Your task to perform on an android device: Clear the shopping cart on ebay.com. Add macbook pro to the cart on ebay.com, then select checkout. Image 0: 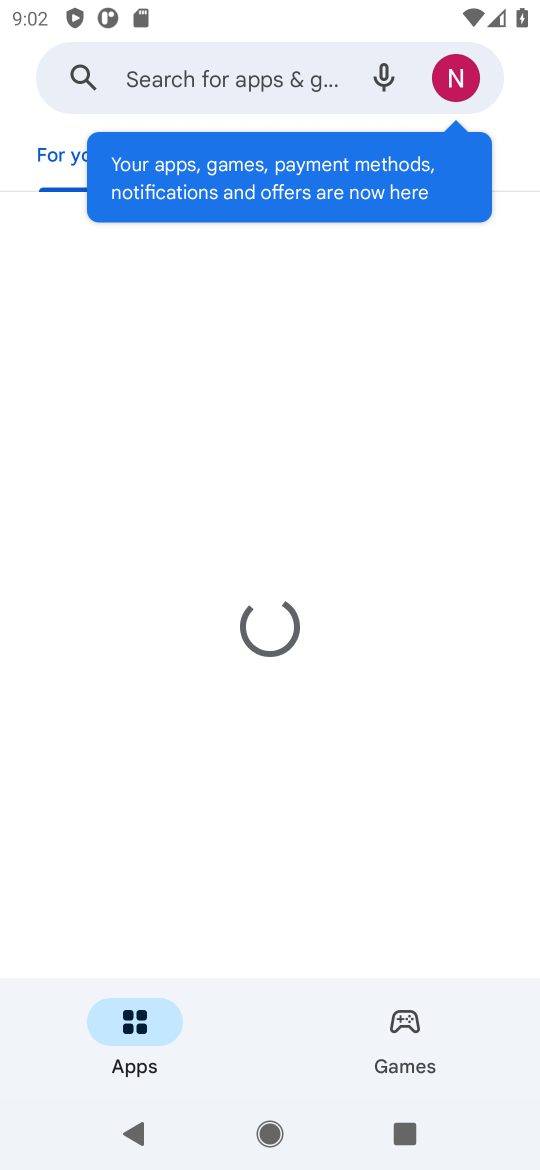
Step 0: press home button
Your task to perform on an android device: Clear the shopping cart on ebay.com. Add macbook pro to the cart on ebay.com, then select checkout. Image 1: 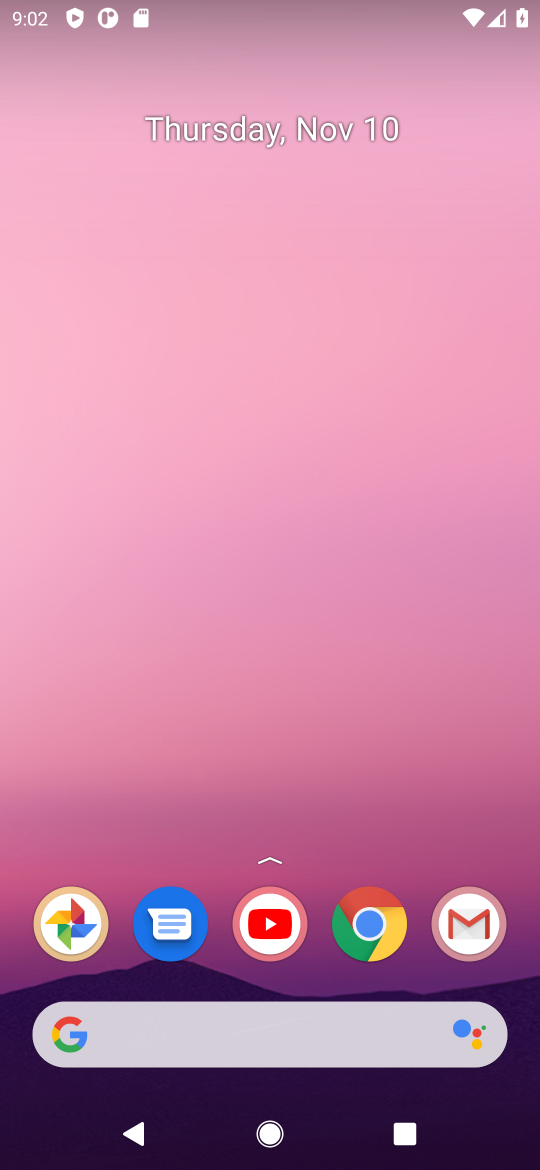
Step 1: click (384, 960)
Your task to perform on an android device: Clear the shopping cart on ebay.com. Add macbook pro to the cart on ebay.com, then select checkout. Image 2: 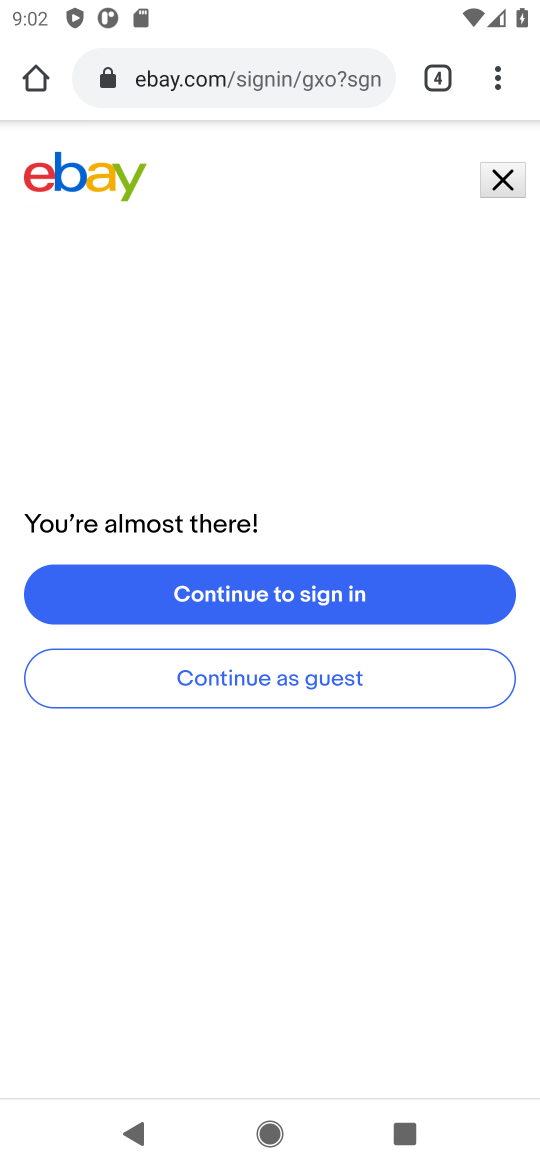
Step 2: click (190, 87)
Your task to perform on an android device: Clear the shopping cart on ebay.com. Add macbook pro to the cart on ebay.com, then select checkout. Image 3: 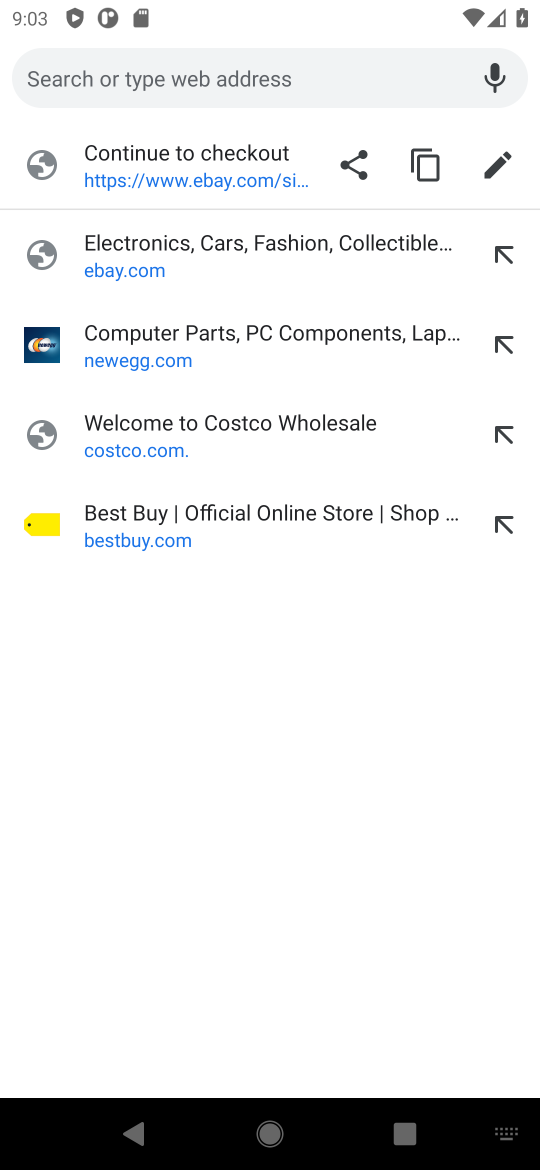
Step 3: click (122, 274)
Your task to perform on an android device: Clear the shopping cart on ebay.com. Add macbook pro to the cart on ebay.com, then select checkout. Image 4: 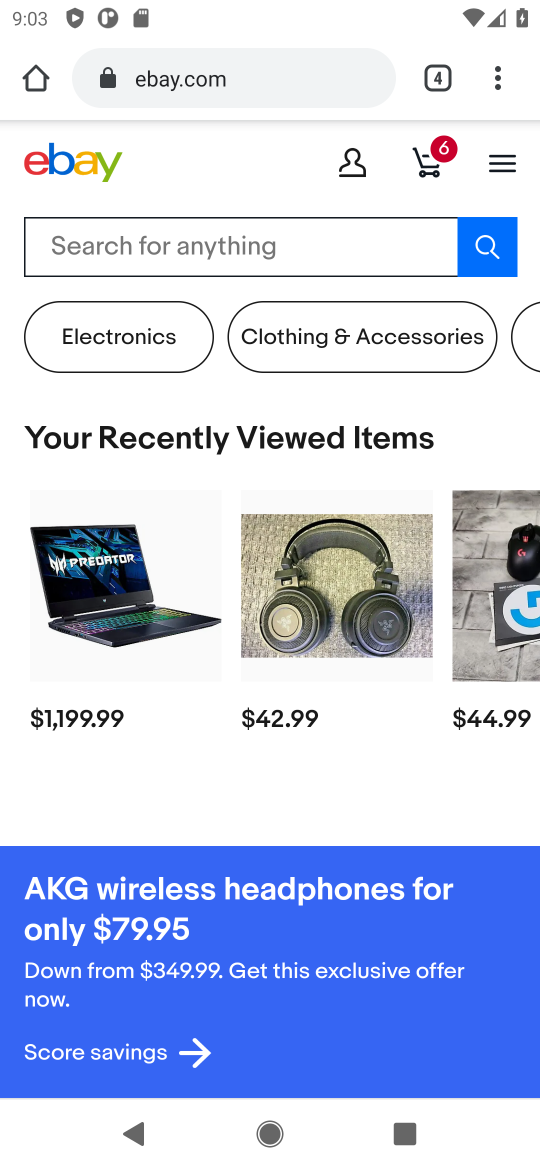
Step 4: click (425, 158)
Your task to perform on an android device: Clear the shopping cart on ebay.com. Add macbook pro to the cart on ebay.com, then select checkout. Image 5: 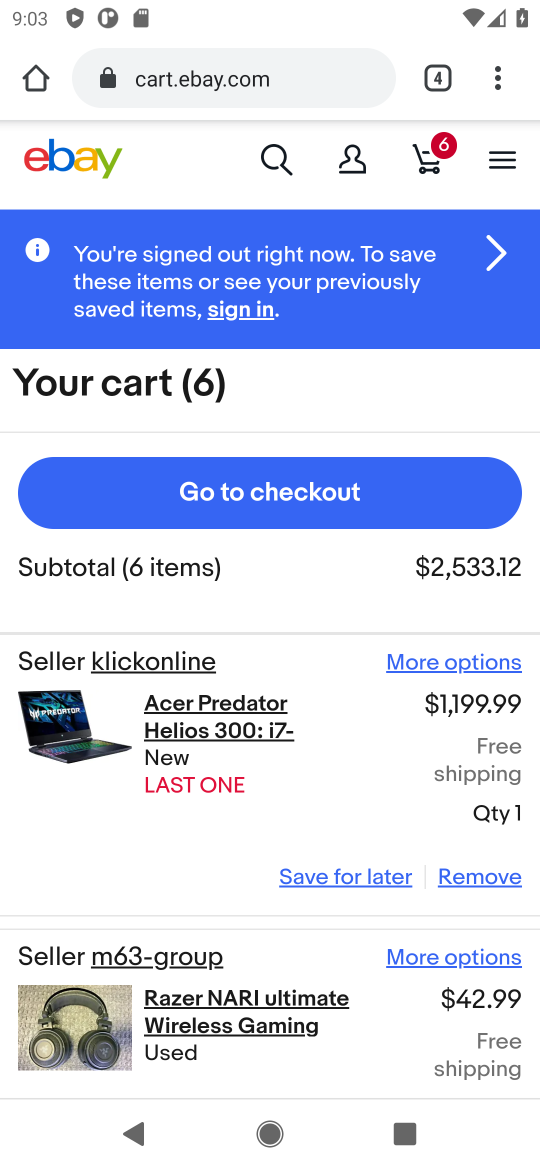
Step 5: click (462, 880)
Your task to perform on an android device: Clear the shopping cart on ebay.com. Add macbook pro to the cart on ebay.com, then select checkout. Image 6: 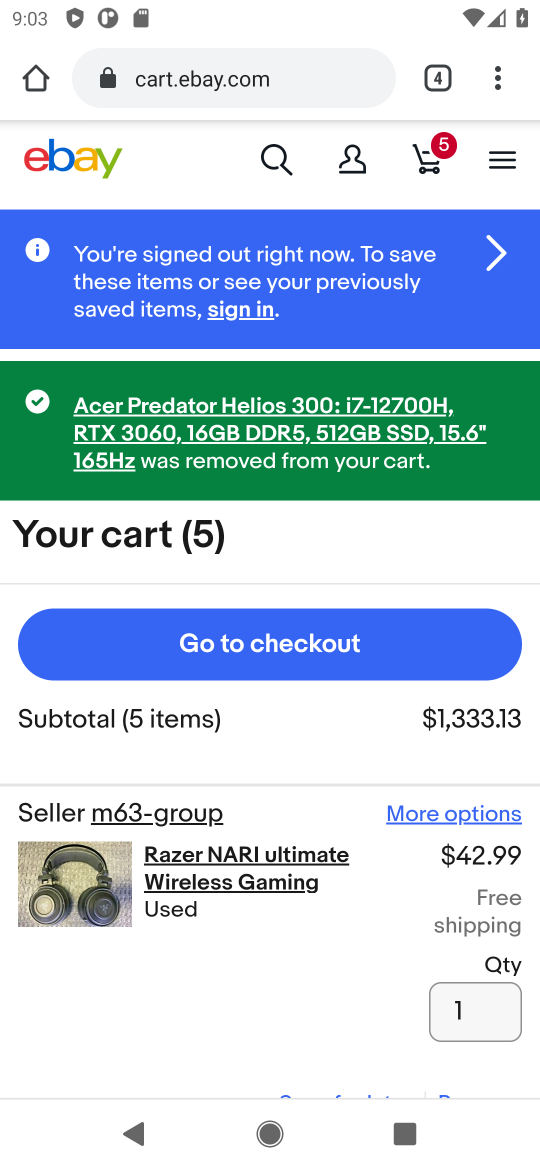
Step 6: drag from (376, 859) to (369, 524)
Your task to perform on an android device: Clear the shopping cart on ebay.com. Add macbook pro to the cart on ebay.com, then select checkout. Image 7: 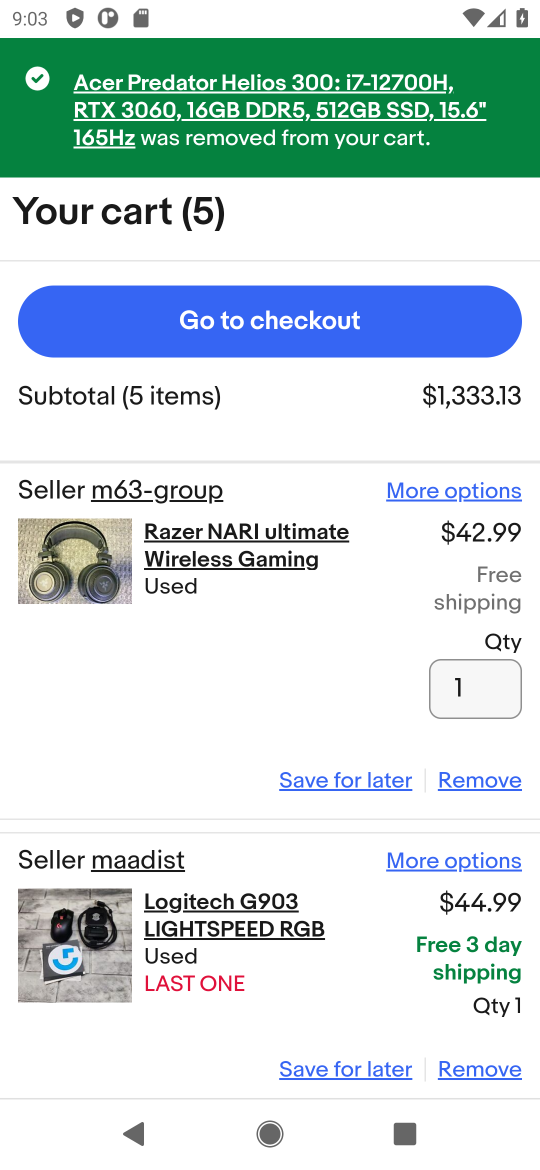
Step 7: click (490, 784)
Your task to perform on an android device: Clear the shopping cart on ebay.com. Add macbook pro to the cart on ebay.com, then select checkout. Image 8: 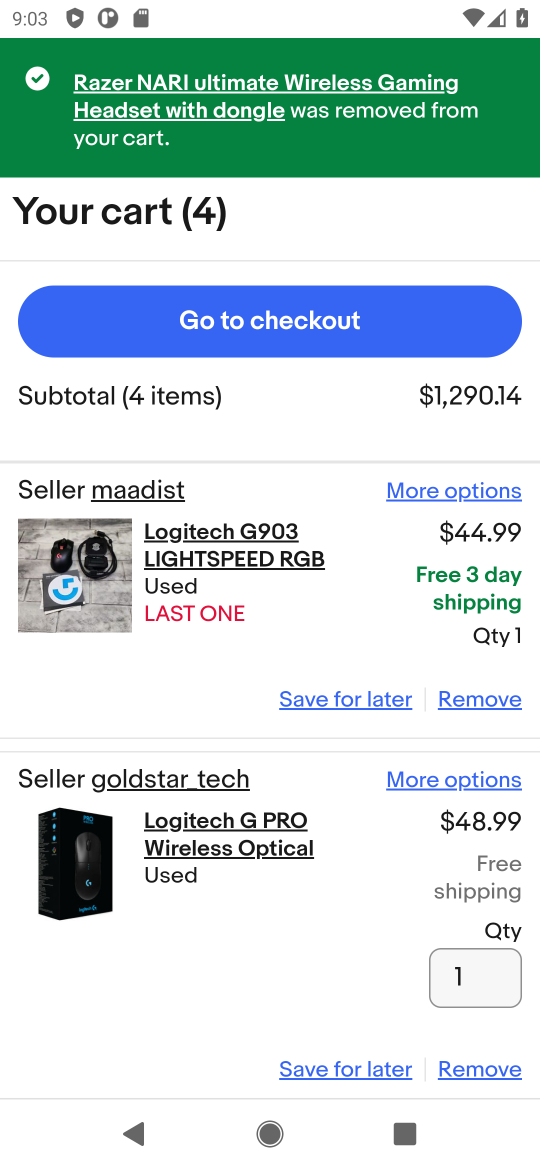
Step 8: click (475, 700)
Your task to perform on an android device: Clear the shopping cart on ebay.com. Add macbook pro to the cart on ebay.com, then select checkout. Image 9: 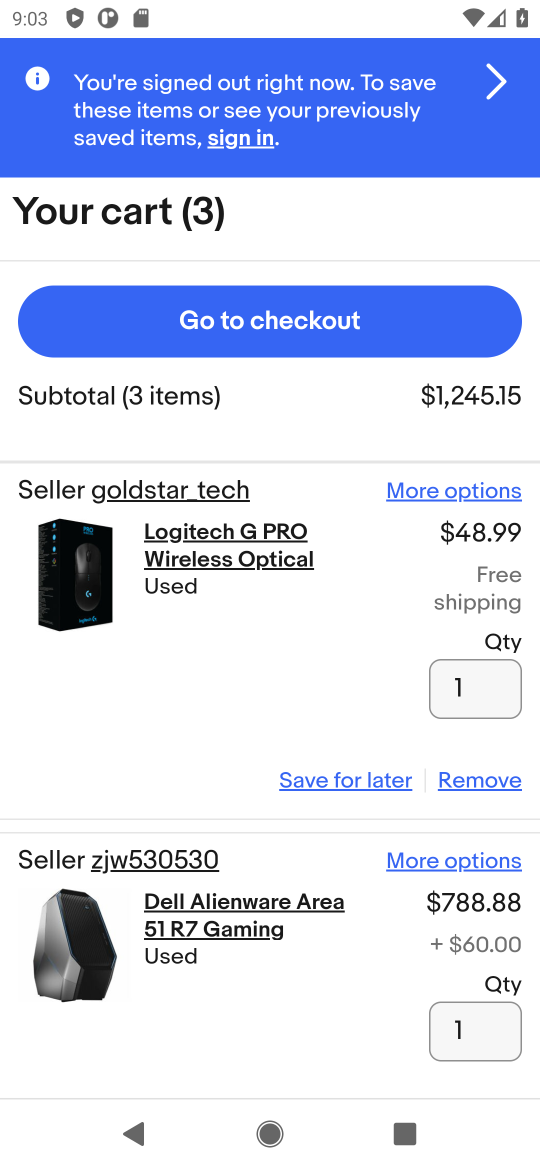
Step 9: click (455, 782)
Your task to perform on an android device: Clear the shopping cart on ebay.com. Add macbook pro to the cart on ebay.com, then select checkout. Image 10: 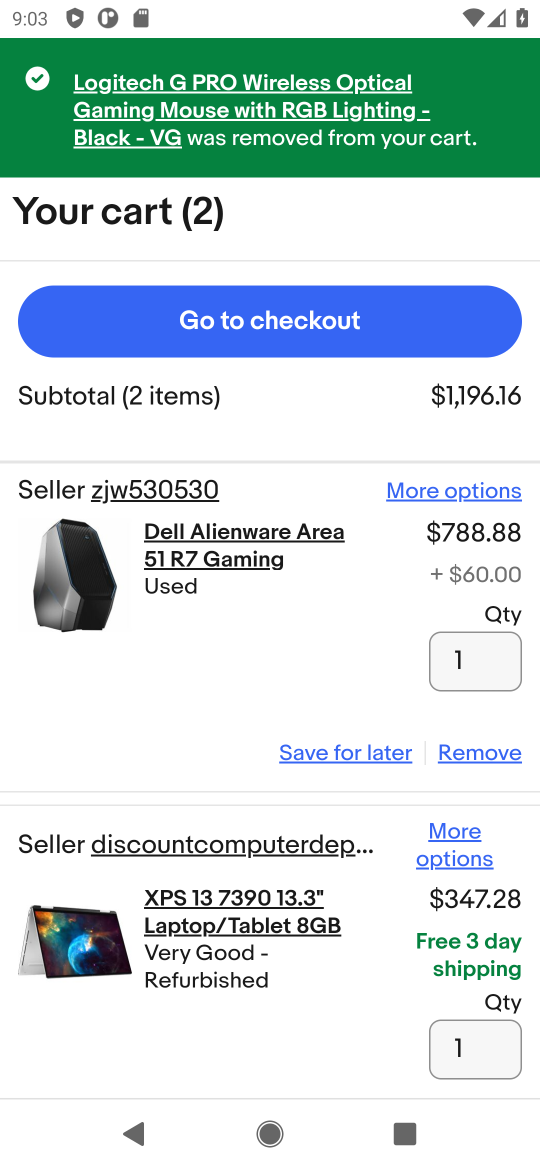
Step 10: click (468, 756)
Your task to perform on an android device: Clear the shopping cart on ebay.com. Add macbook pro to the cart on ebay.com, then select checkout. Image 11: 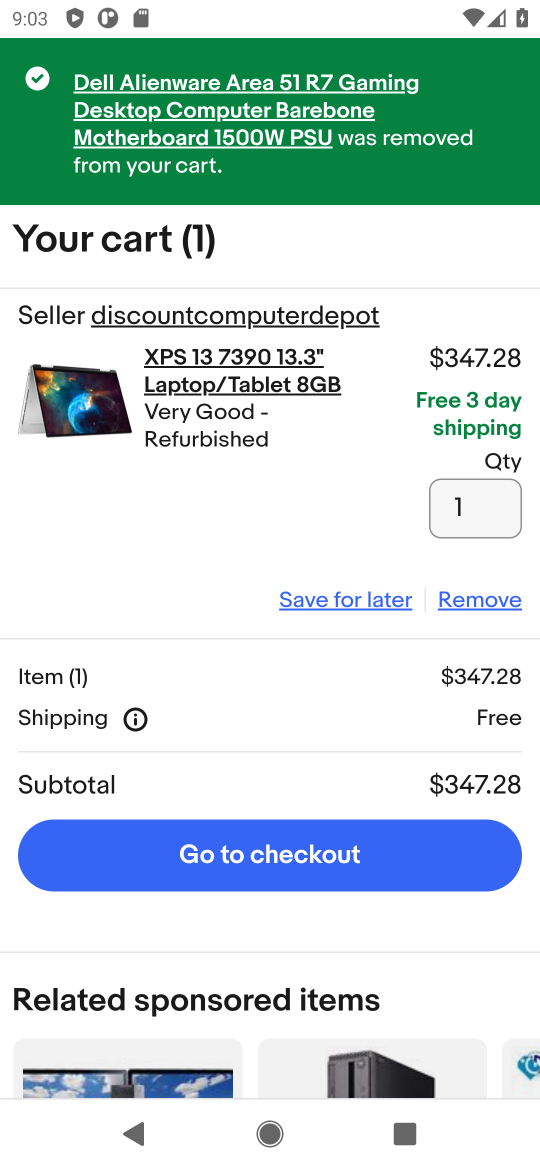
Step 11: click (458, 603)
Your task to perform on an android device: Clear the shopping cart on ebay.com. Add macbook pro to the cart on ebay.com, then select checkout. Image 12: 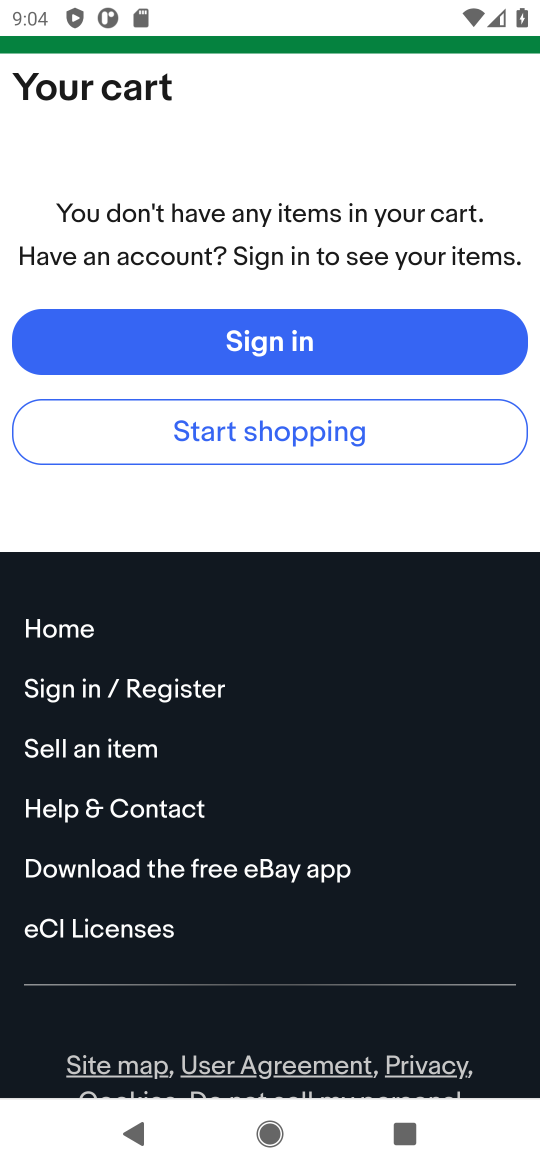
Step 12: drag from (404, 481) to (420, 704)
Your task to perform on an android device: Clear the shopping cart on ebay.com. Add macbook pro to the cart on ebay.com, then select checkout. Image 13: 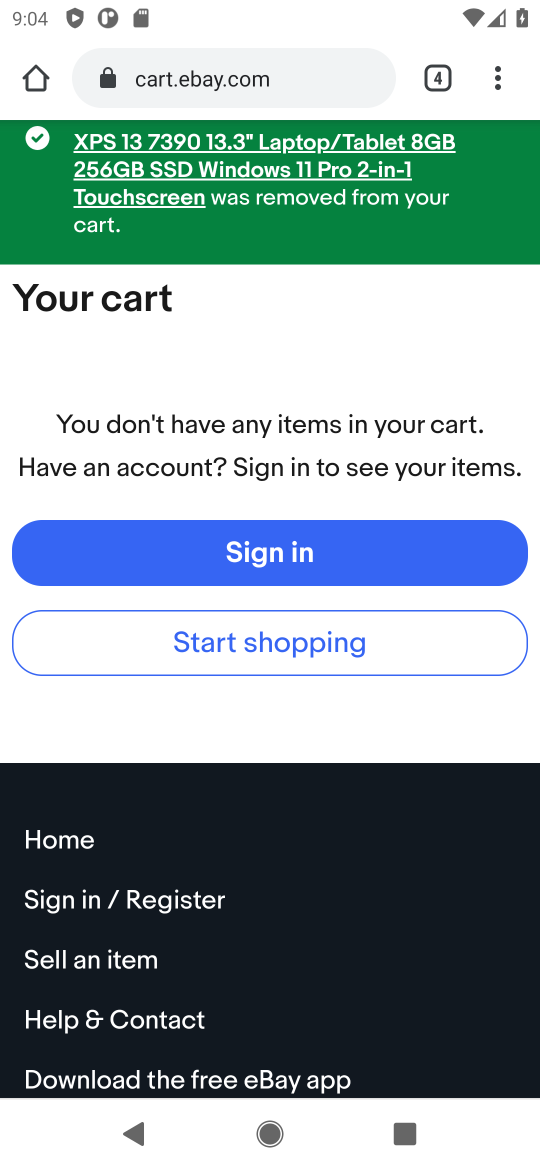
Step 13: drag from (360, 274) to (419, 589)
Your task to perform on an android device: Clear the shopping cart on ebay.com. Add macbook pro to the cart on ebay.com, then select checkout. Image 14: 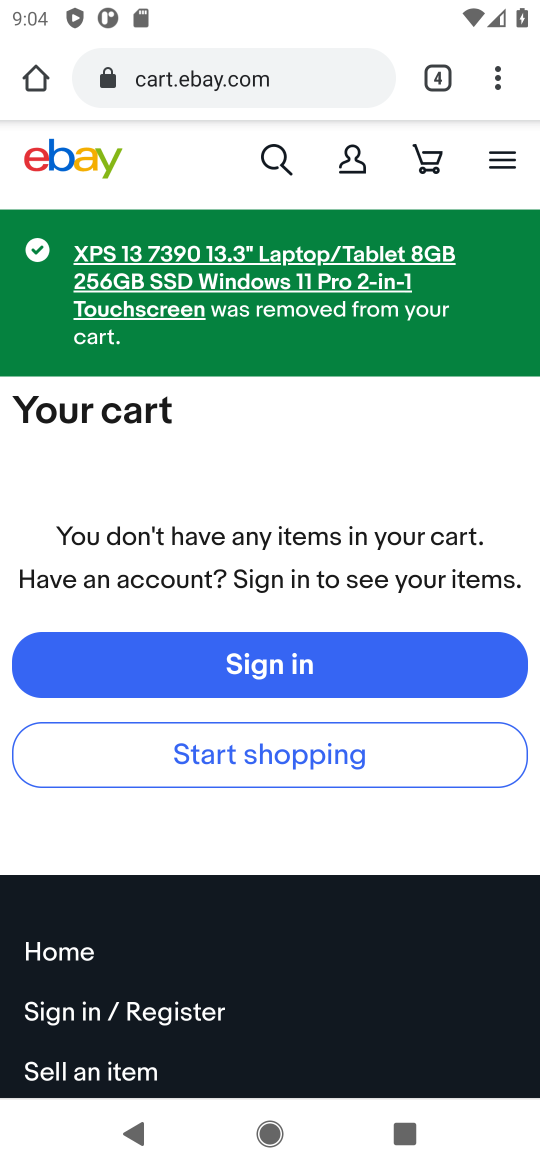
Step 14: click (283, 159)
Your task to perform on an android device: Clear the shopping cart on ebay.com. Add macbook pro to the cart on ebay.com, then select checkout. Image 15: 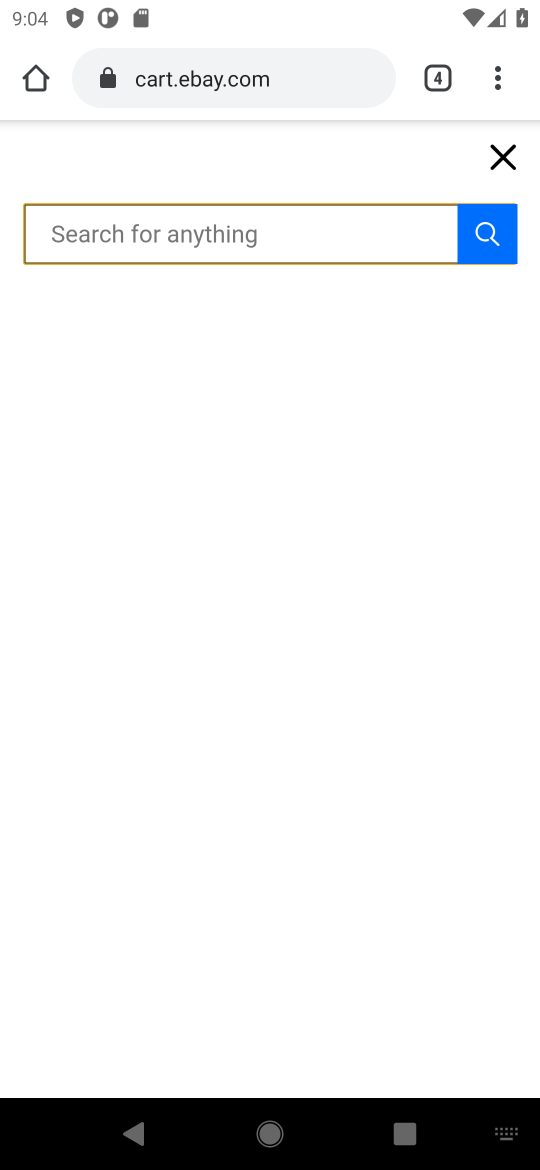
Step 15: type "macbook pro"
Your task to perform on an android device: Clear the shopping cart on ebay.com. Add macbook pro to the cart on ebay.com, then select checkout. Image 16: 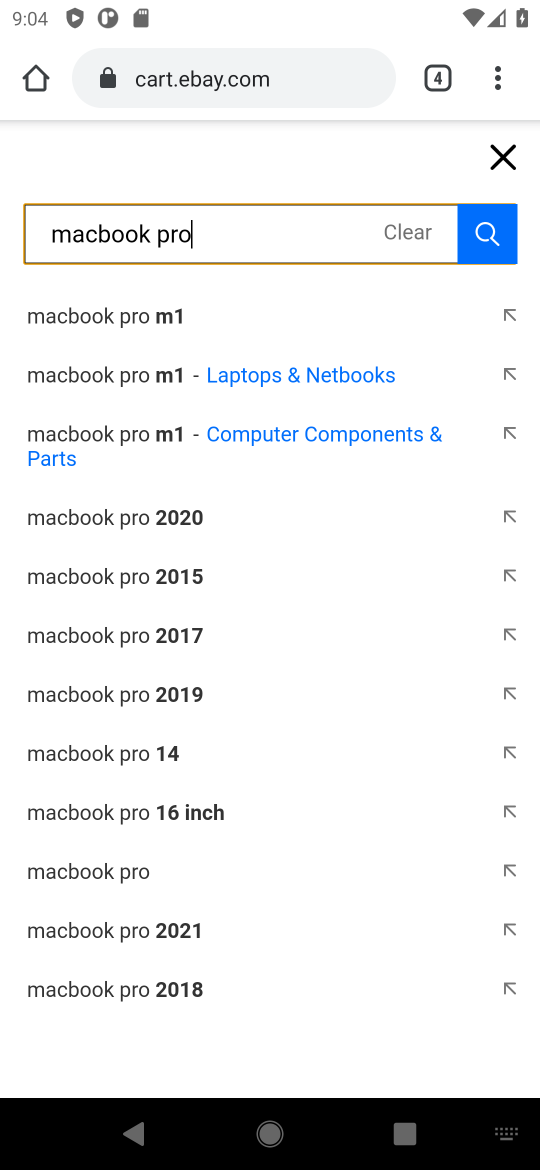
Step 16: click (81, 877)
Your task to perform on an android device: Clear the shopping cart on ebay.com. Add macbook pro to the cart on ebay.com, then select checkout. Image 17: 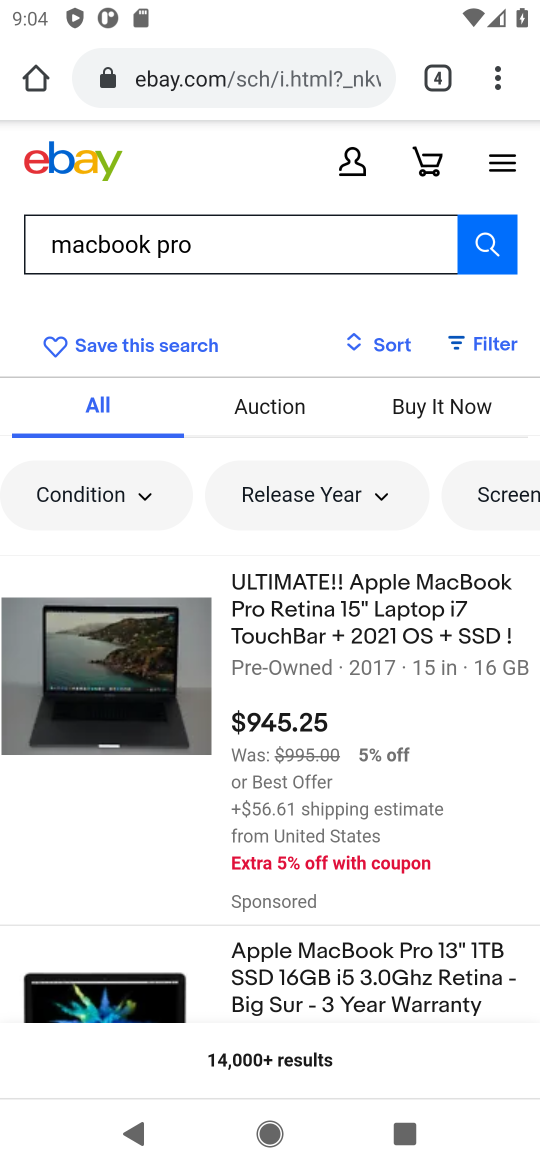
Step 17: click (136, 732)
Your task to perform on an android device: Clear the shopping cart on ebay.com. Add macbook pro to the cart on ebay.com, then select checkout. Image 18: 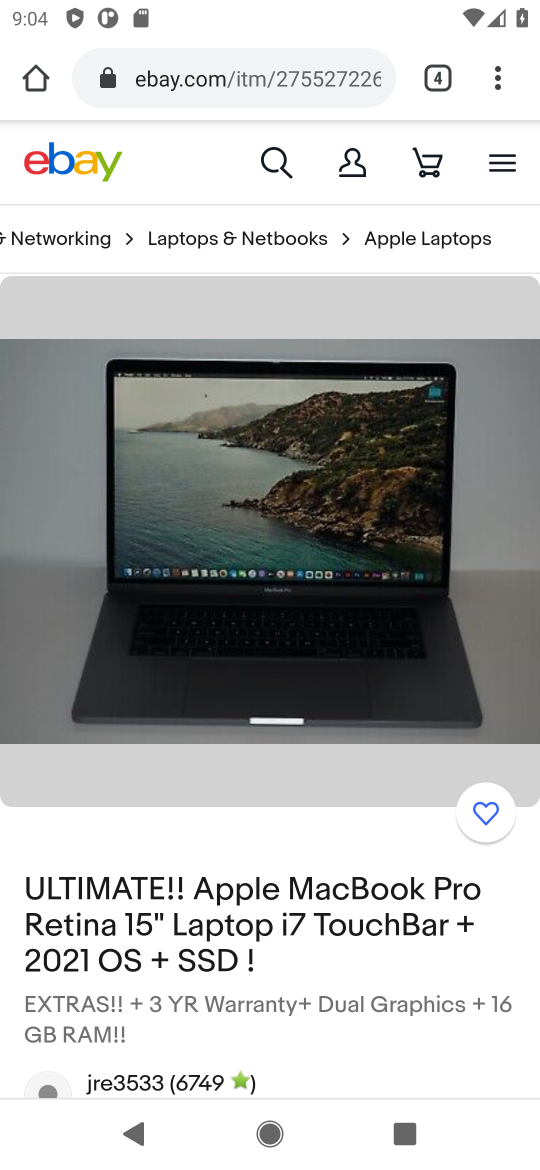
Step 18: drag from (176, 797) to (190, 383)
Your task to perform on an android device: Clear the shopping cart on ebay.com. Add macbook pro to the cart on ebay.com, then select checkout. Image 19: 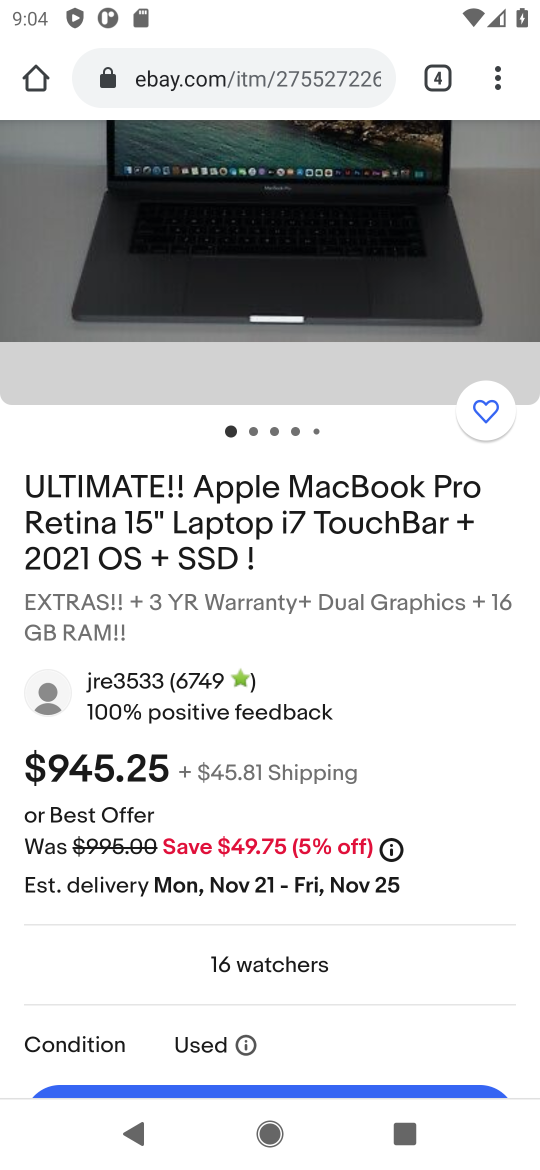
Step 19: drag from (247, 788) to (249, 306)
Your task to perform on an android device: Clear the shopping cart on ebay.com. Add macbook pro to the cart on ebay.com, then select checkout. Image 20: 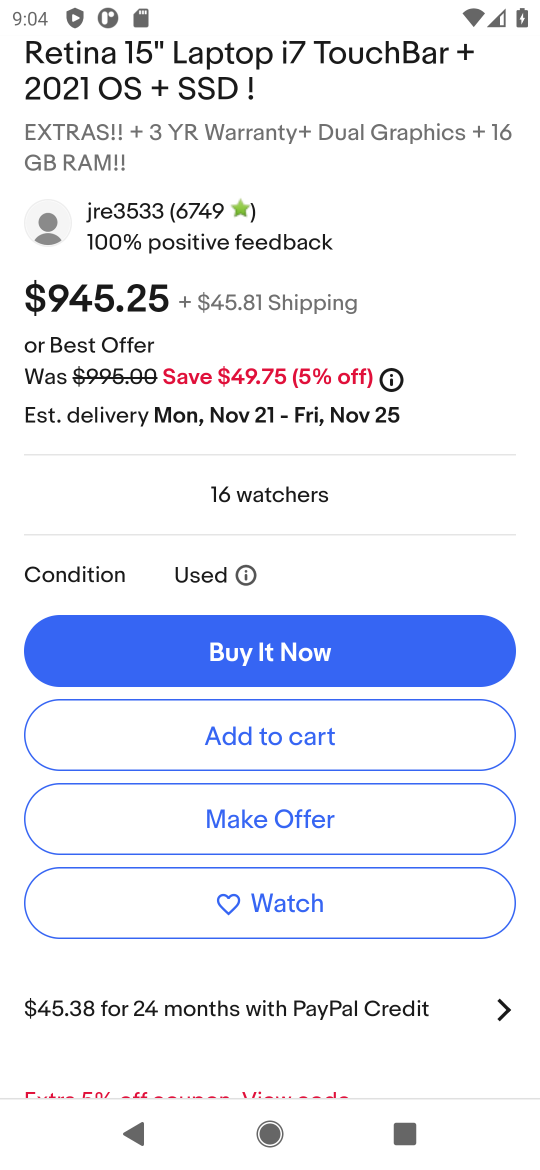
Step 20: click (231, 727)
Your task to perform on an android device: Clear the shopping cart on ebay.com. Add macbook pro to the cart on ebay.com, then select checkout. Image 21: 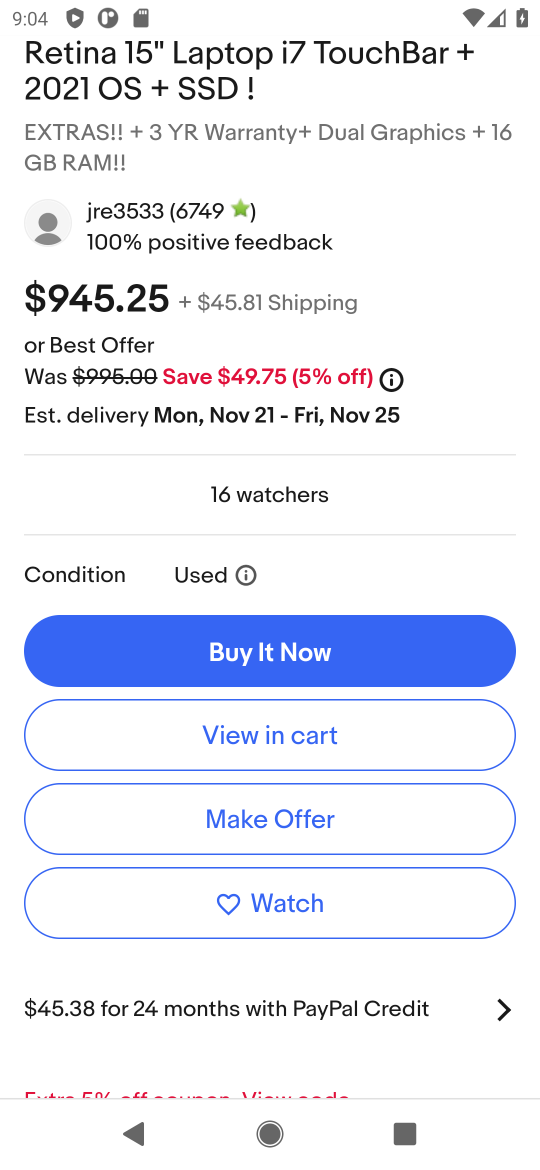
Step 21: click (231, 727)
Your task to perform on an android device: Clear the shopping cart on ebay.com. Add macbook pro to the cart on ebay.com, then select checkout. Image 22: 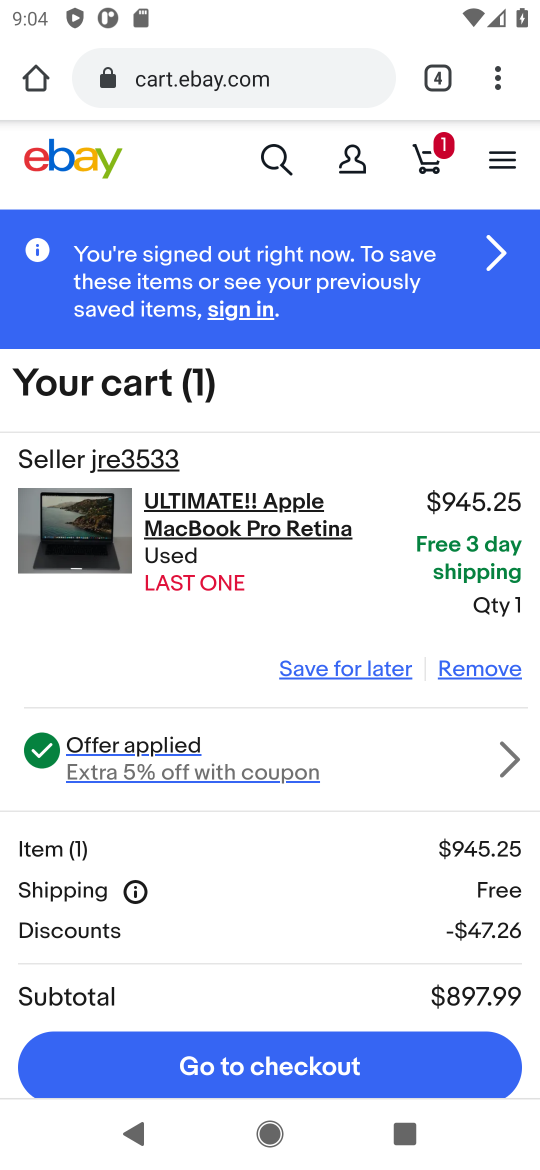
Step 22: click (274, 1055)
Your task to perform on an android device: Clear the shopping cart on ebay.com. Add macbook pro to the cart on ebay.com, then select checkout. Image 23: 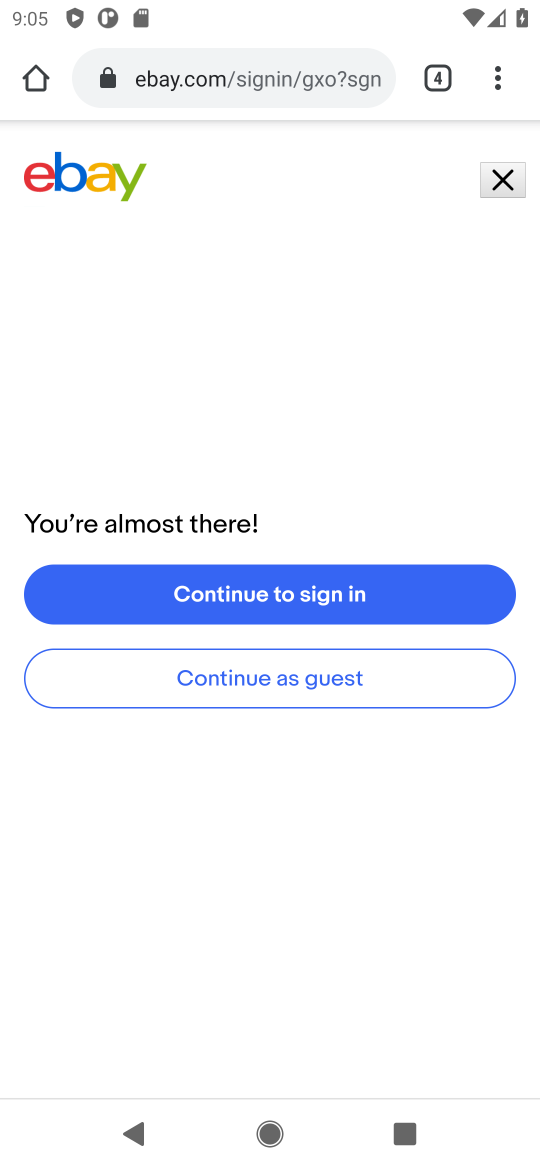
Step 23: task complete